Your task to perform on an android device: Go to Wikipedia Image 0: 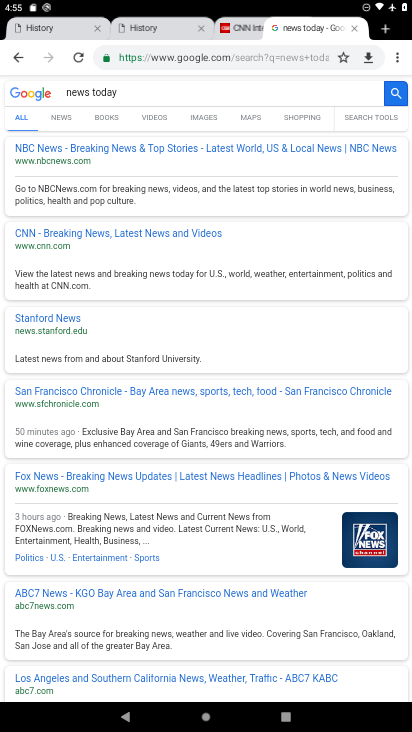
Step 0: press home button
Your task to perform on an android device: Go to Wikipedia Image 1: 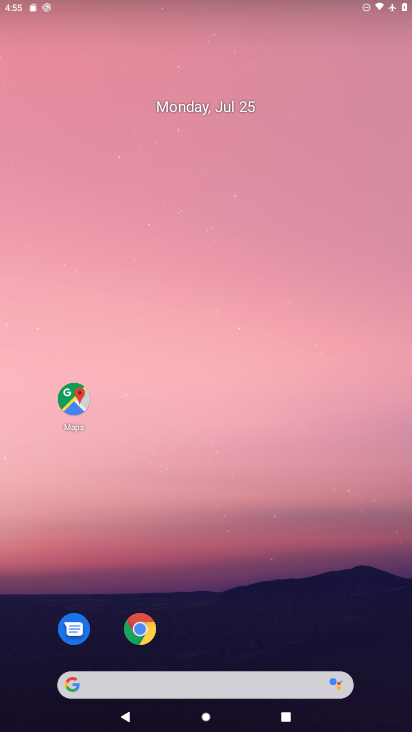
Step 1: drag from (233, 701) to (239, 86)
Your task to perform on an android device: Go to Wikipedia Image 2: 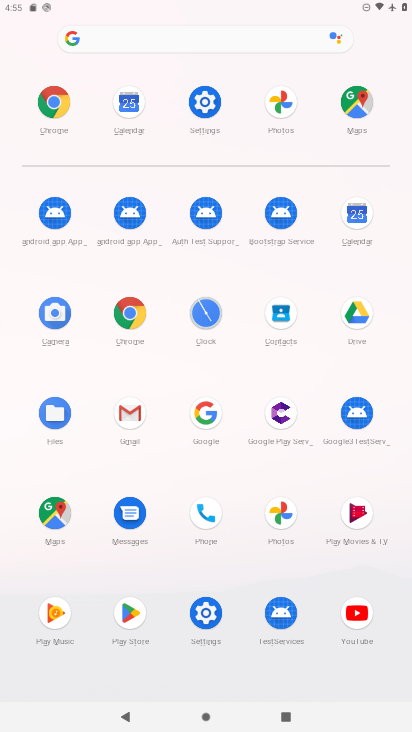
Step 2: click (140, 309)
Your task to perform on an android device: Go to Wikipedia Image 3: 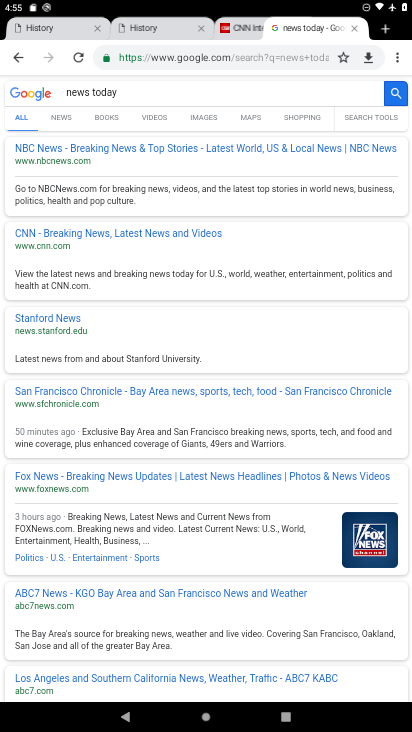
Step 3: click (230, 63)
Your task to perform on an android device: Go to Wikipedia Image 4: 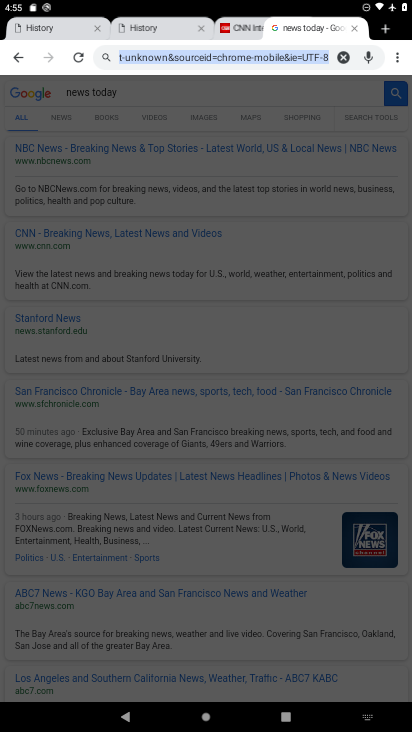
Step 4: type "wikipedia"
Your task to perform on an android device: Go to Wikipedia Image 5: 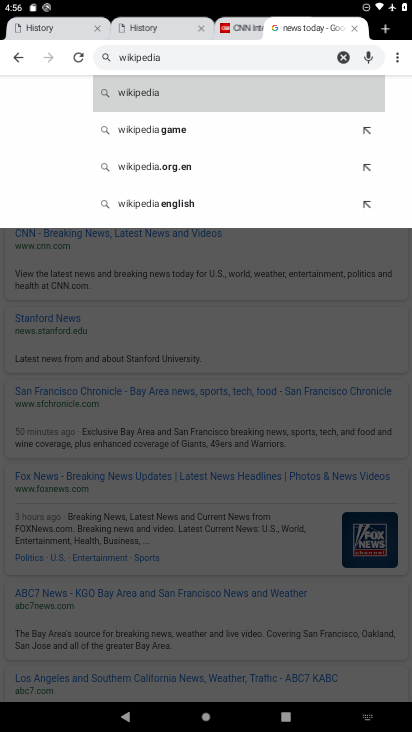
Step 5: click (206, 87)
Your task to perform on an android device: Go to Wikipedia Image 6: 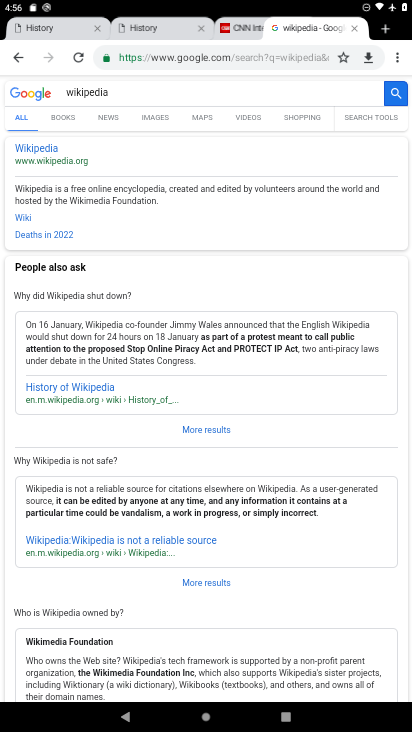
Step 6: task complete